Your task to perform on an android device: Add "razer kraken" to the cart on ebay.com Image 0: 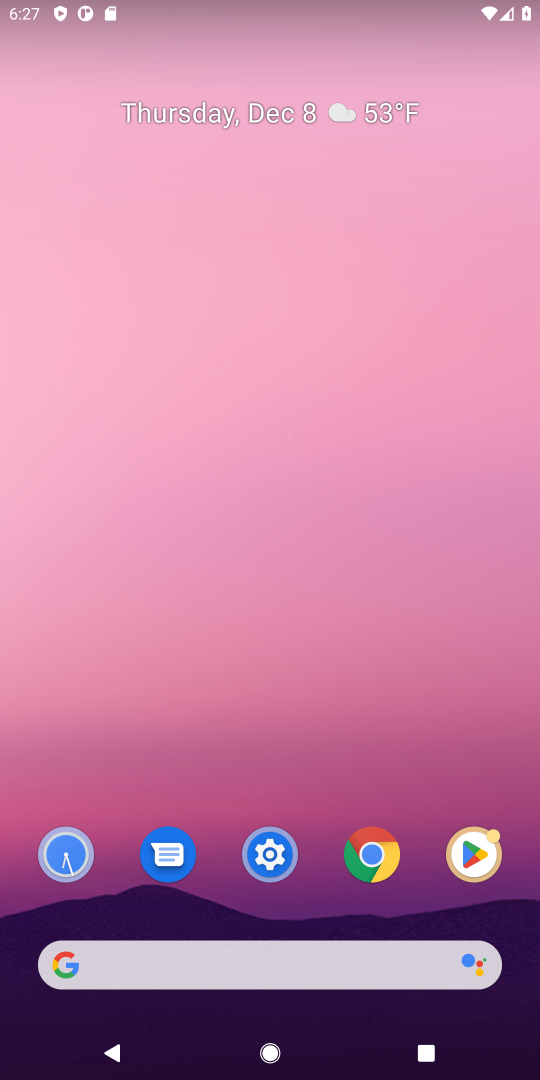
Step 0: press home button
Your task to perform on an android device: Add "razer kraken" to the cart on ebay.com Image 1: 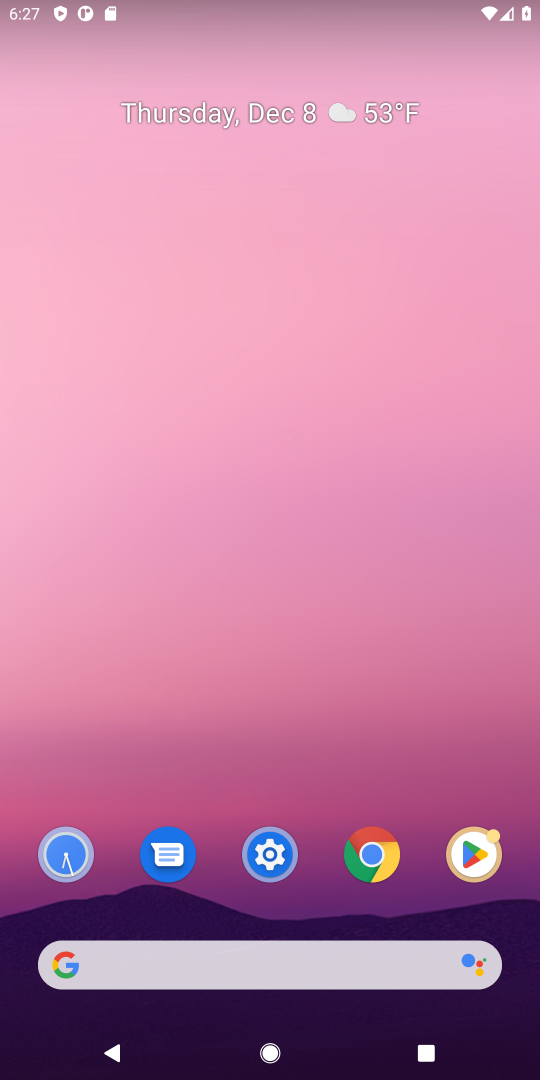
Step 1: click (94, 967)
Your task to perform on an android device: Add "razer kraken" to the cart on ebay.com Image 2: 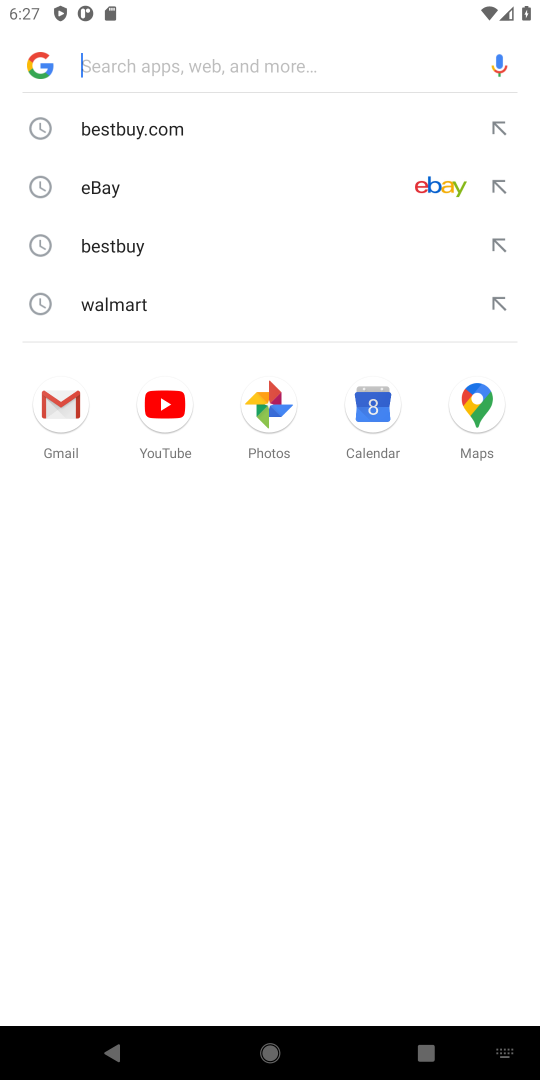
Step 2: type "ebay.com"
Your task to perform on an android device: Add "razer kraken" to the cart on ebay.com Image 3: 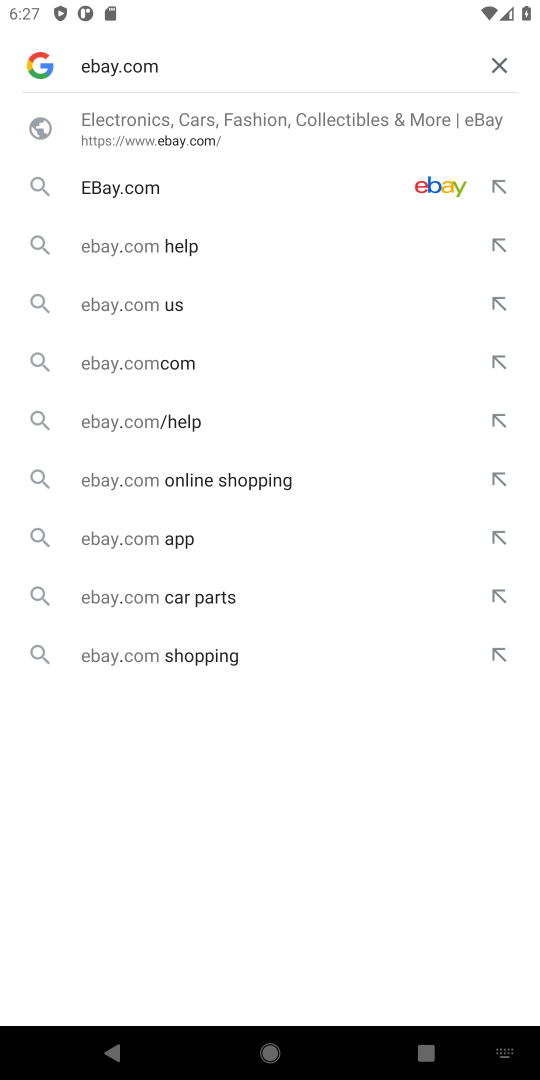
Step 3: press enter
Your task to perform on an android device: Add "razer kraken" to the cart on ebay.com Image 4: 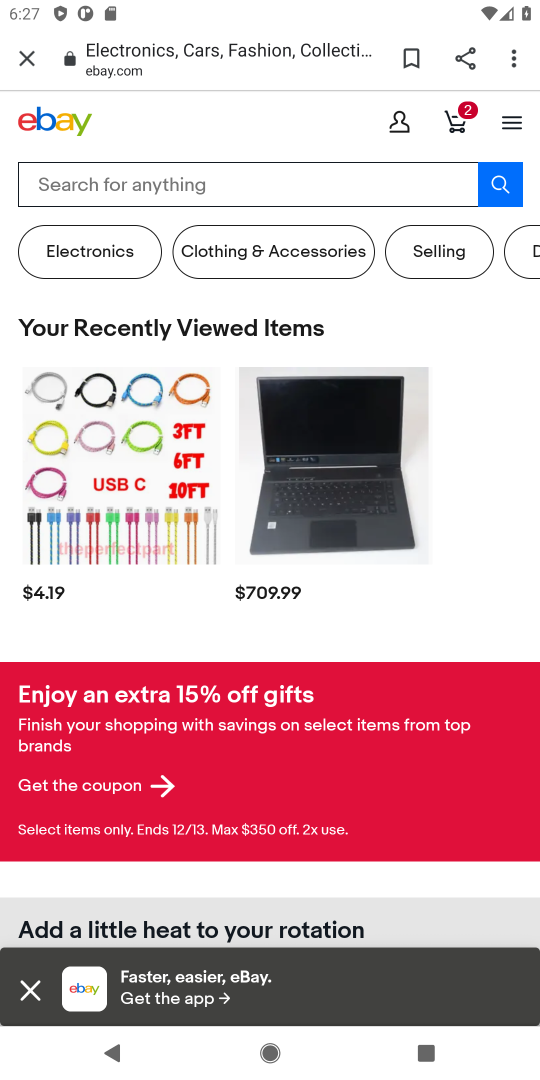
Step 4: click (40, 177)
Your task to perform on an android device: Add "razer kraken" to the cart on ebay.com Image 5: 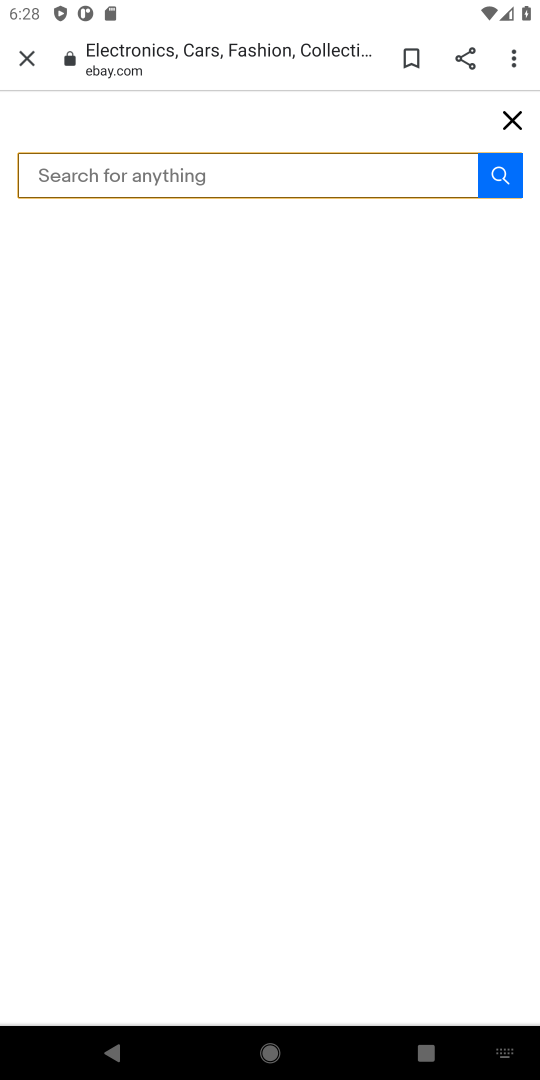
Step 5: type "razer kraken"
Your task to perform on an android device: Add "razer kraken" to the cart on ebay.com Image 6: 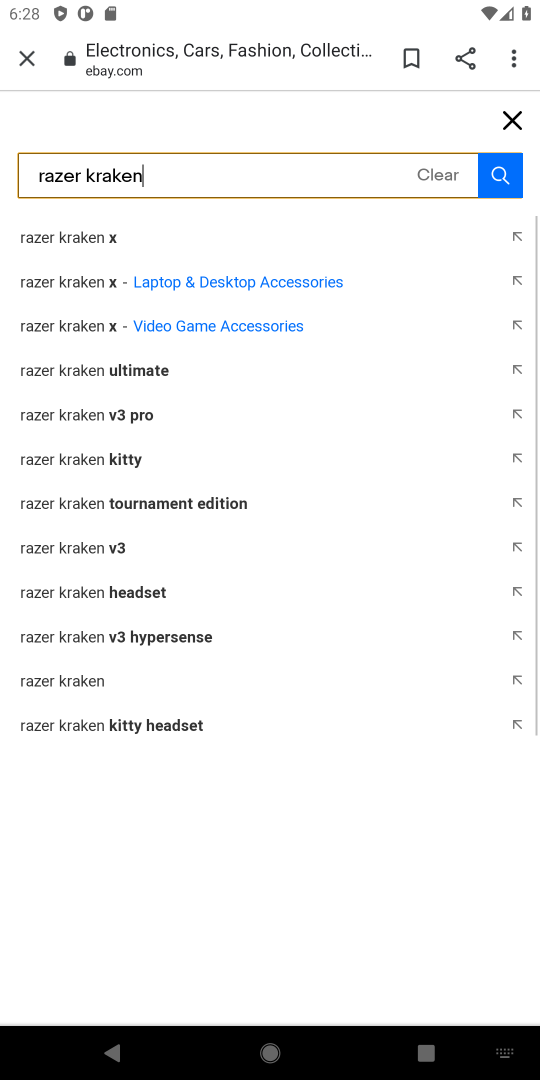
Step 6: press enter
Your task to perform on an android device: Add "razer kraken" to the cart on ebay.com Image 7: 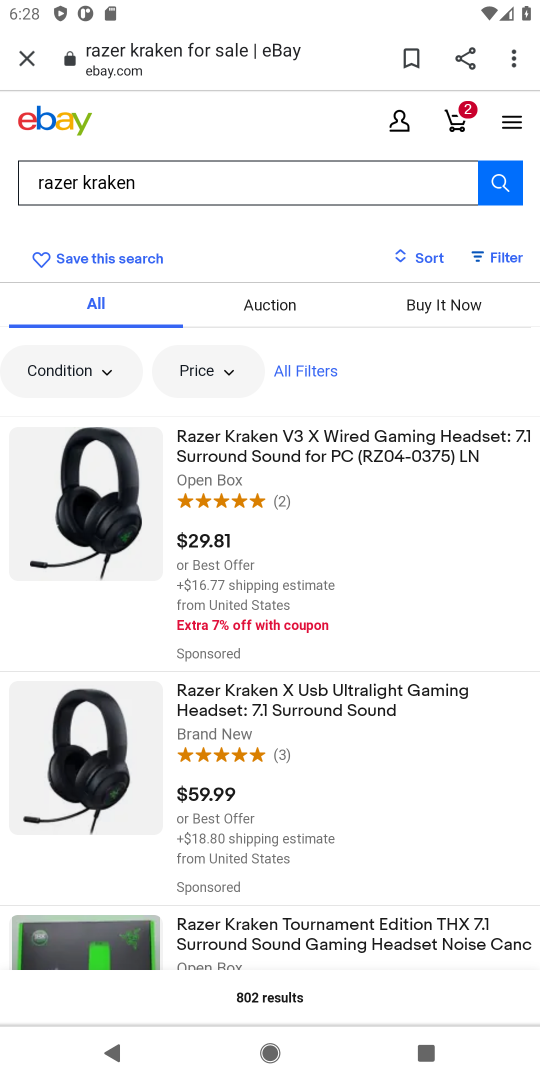
Step 7: click (274, 437)
Your task to perform on an android device: Add "razer kraken" to the cart on ebay.com Image 8: 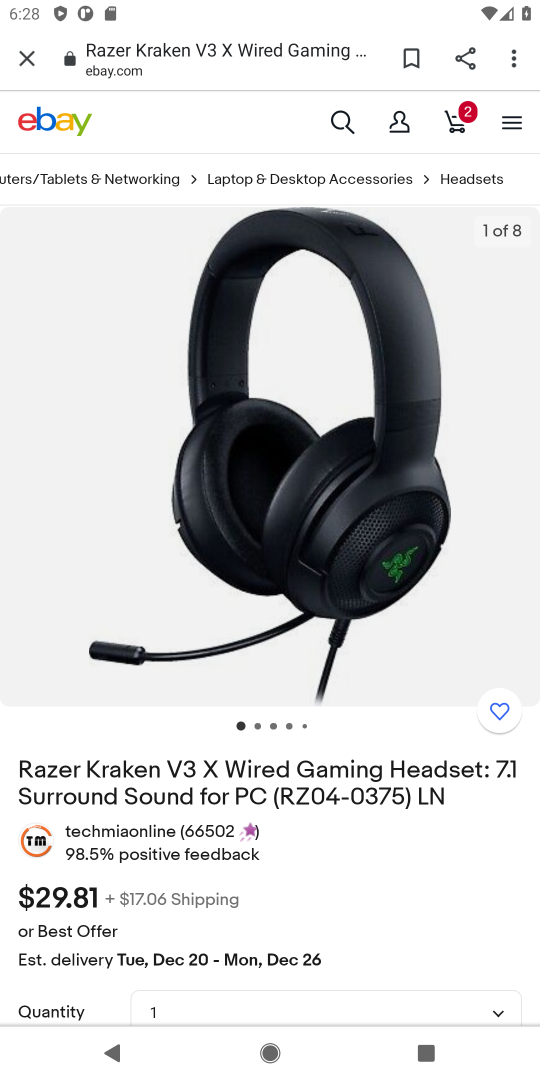
Step 8: drag from (362, 869) to (385, 344)
Your task to perform on an android device: Add "razer kraken" to the cart on ebay.com Image 9: 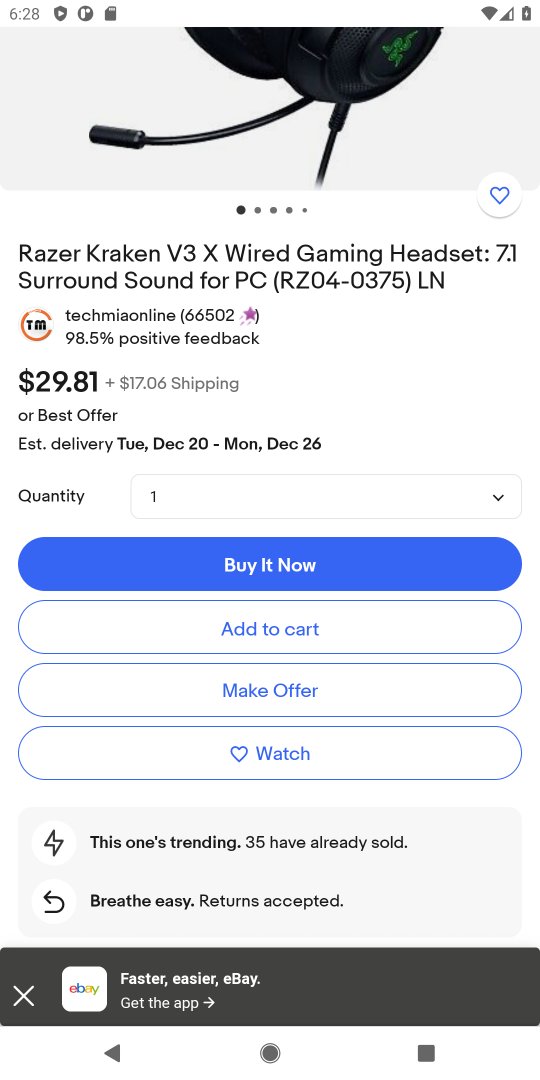
Step 9: click (239, 632)
Your task to perform on an android device: Add "razer kraken" to the cart on ebay.com Image 10: 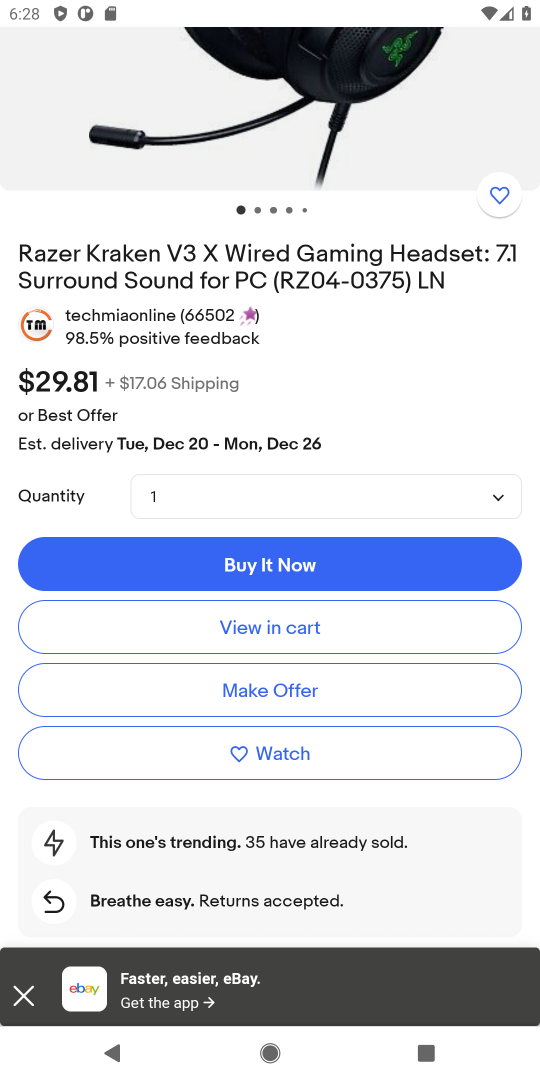
Step 10: task complete